Your task to perform on an android device: change the clock style Image 0: 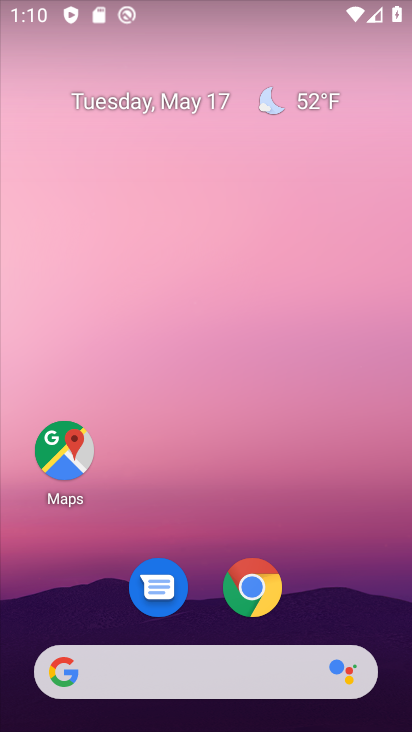
Step 0: drag from (355, 591) to (383, 26)
Your task to perform on an android device: change the clock style Image 1: 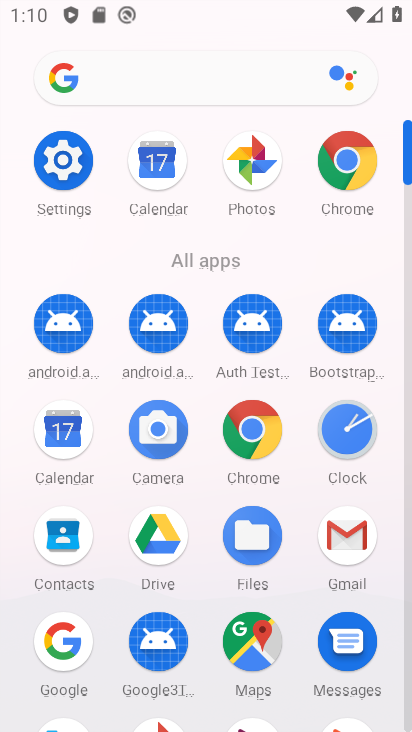
Step 1: click (142, 172)
Your task to perform on an android device: change the clock style Image 2: 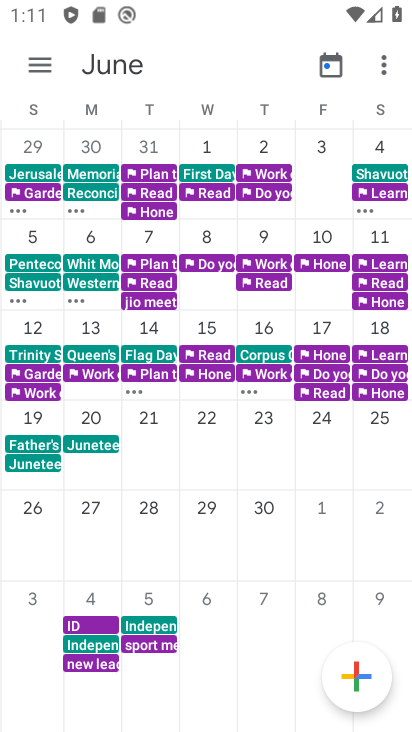
Step 2: press home button
Your task to perform on an android device: change the clock style Image 3: 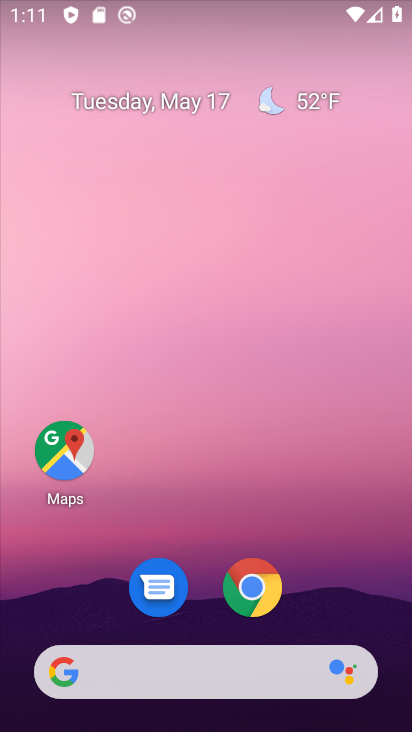
Step 3: drag from (338, 585) to (338, 197)
Your task to perform on an android device: change the clock style Image 4: 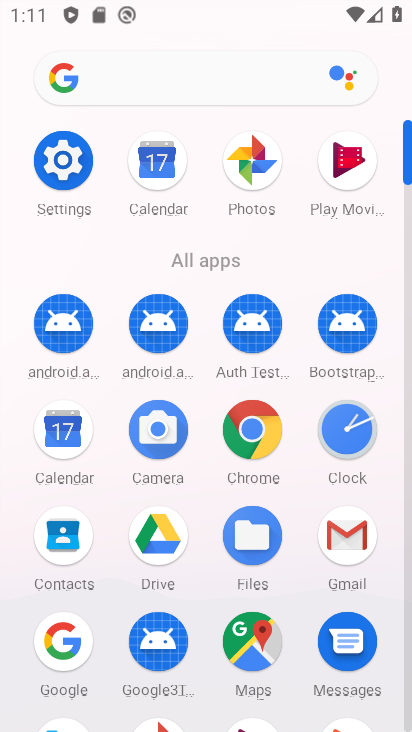
Step 4: click (342, 423)
Your task to perform on an android device: change the clock style Image 5: 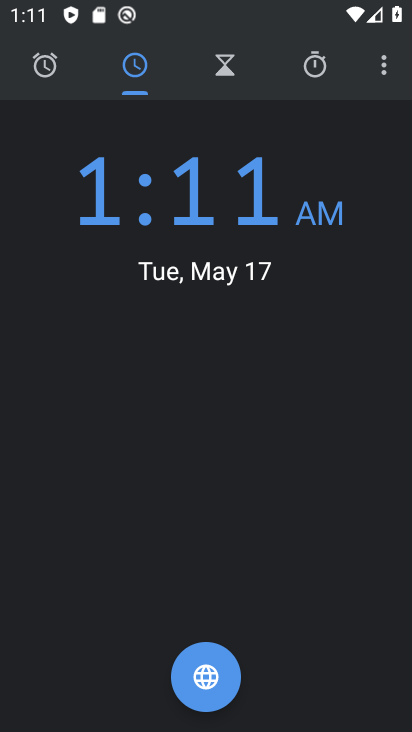
Step 5: click (387, 71)
Your task to perform on an android device: change the clock style Image 6: 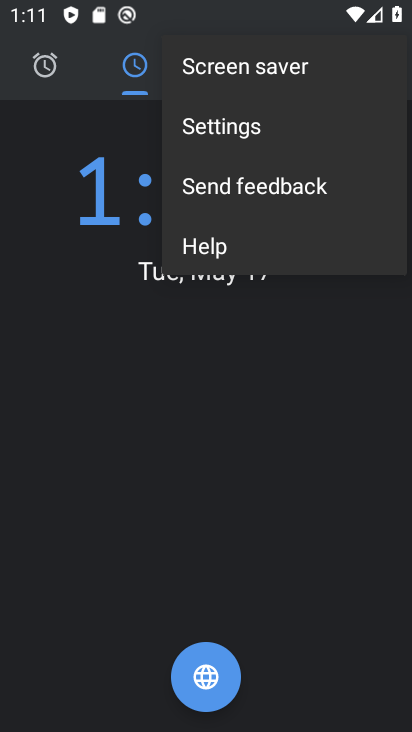
Step 6: click (295, 130)
Your task to perform on an android device: change the clock style Image 7: 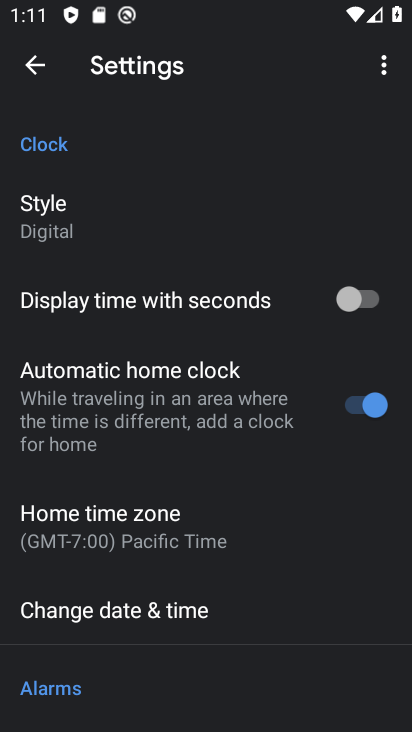
Step 7: click (119, 205)
Your task to perform on an android device: change the clock style Image 8: 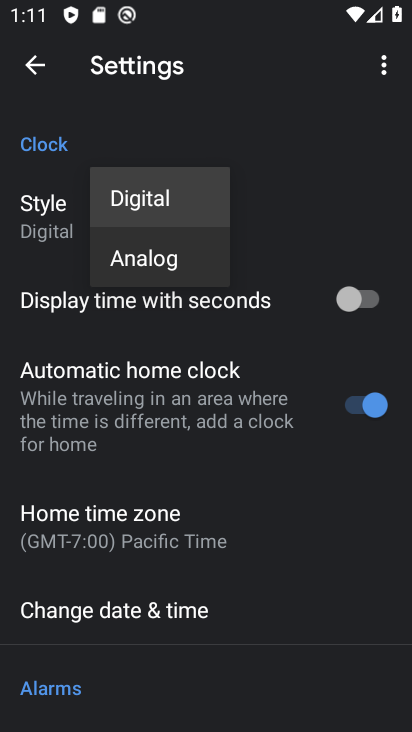
Step 8: click (179, 231)
Your task to perform on an android device: change the clock style Image 9: 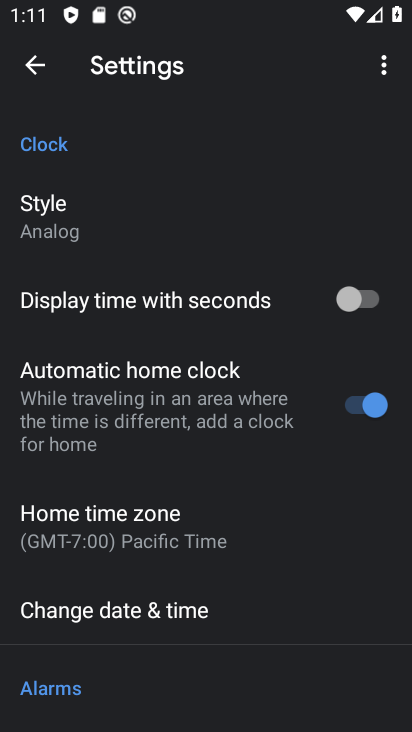
Step 9: task complete